Your task to perform on an android device: turn off sleep mode Image 0: 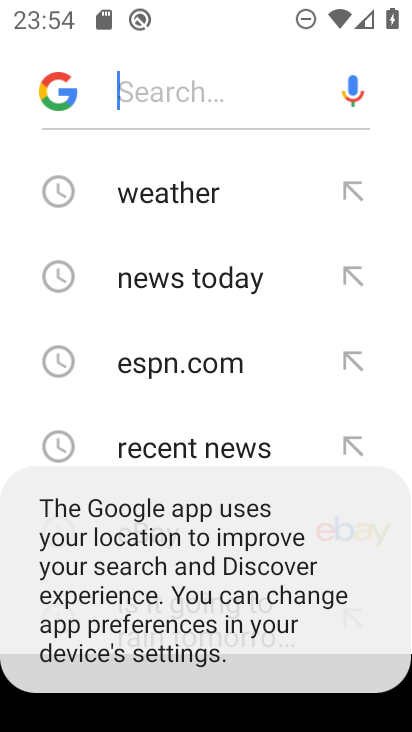
Step 0: press home button
Your task to perform on an android device: turn off sleep mode Image 1: 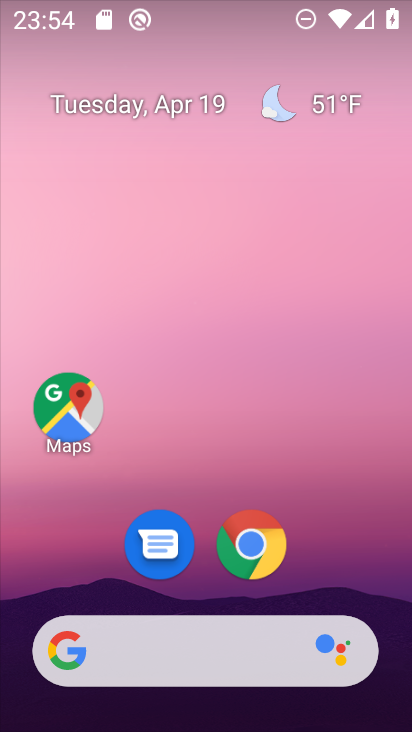
Step 1: drag from (361, 571) to (314, 99)
Your task to perform on an android device: turn off sleep mode Image 2: 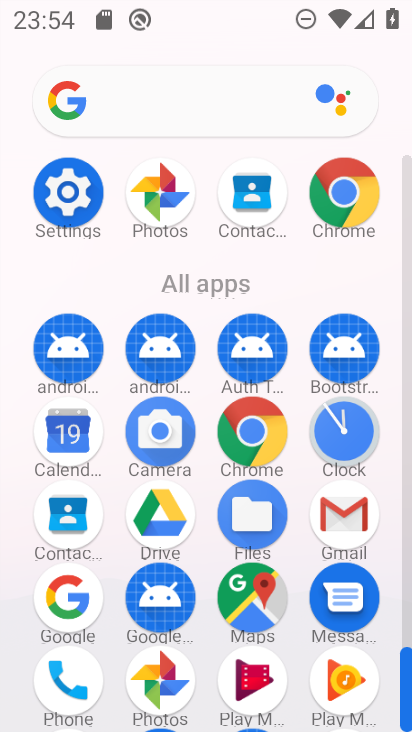
Step 2: click (77, 217)
Your task to perform on an android device: turn off sleep mode Image 3: 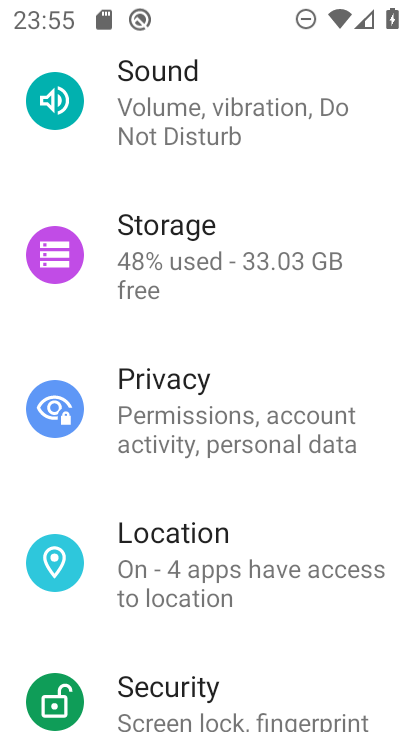
Step 3: drag from (299, 639) to (195, 341)
Your task to perform on an android device: turn off sleep mode Image 4: 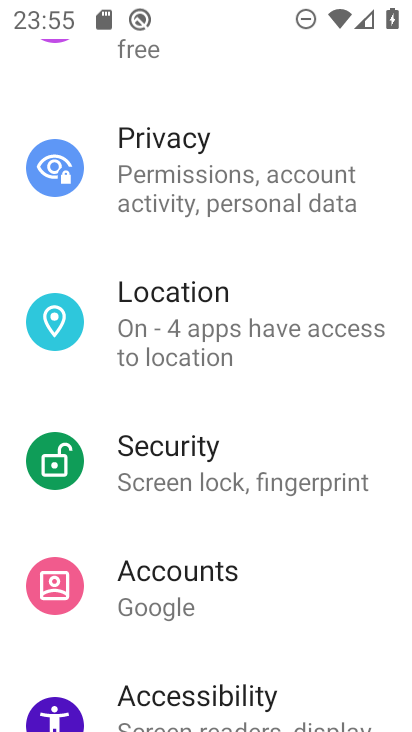
Step 4: drag from (363, 512) to (364, 316)
Your task to perform on an android device: turn off sleep mode Image 5: 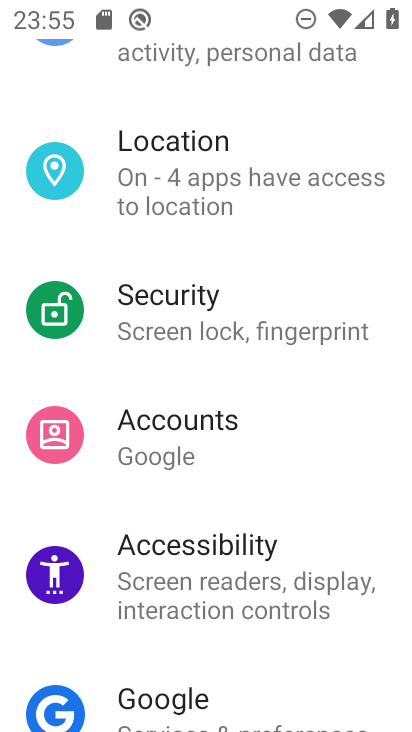
Step 5: drag from (368, 535) to (327, 276)
Your task to perform on an android device: turn off sleep mode Image 6: 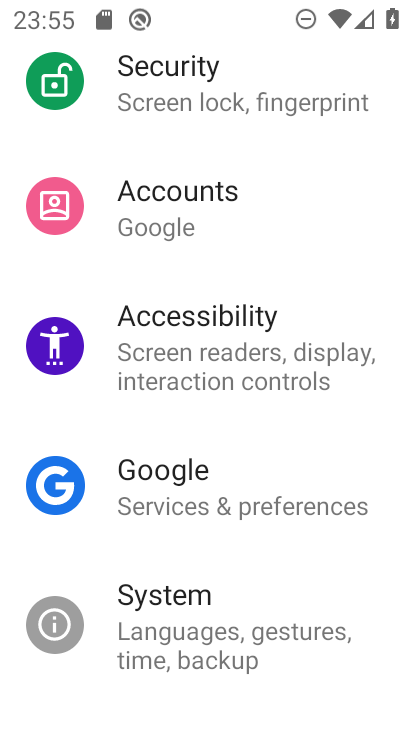
Step 6: drag from (369, 222) to (411, 409)
Your task to perform on an android device: turn off sleep mode Image 7: 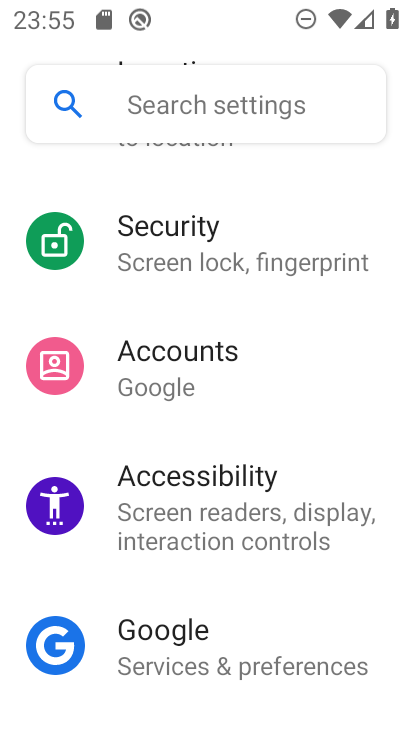
Step 7: drag from (387, 191) to (388, 425)
Your task to perform on an android device: turn off sleep mode Image 8: 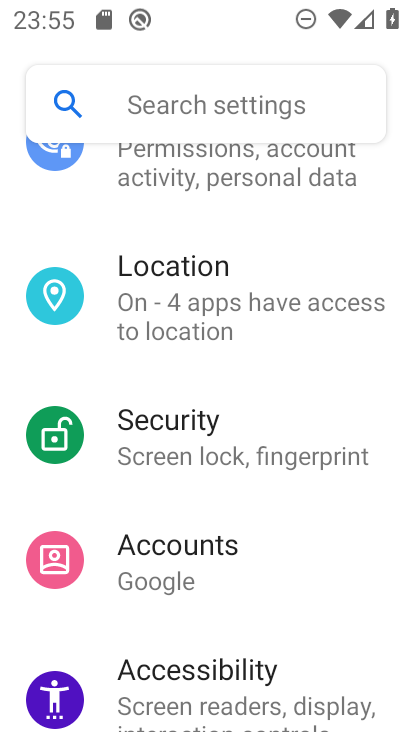
Step 8: drag from (381, 179) to (371, 437)
Your task to perform on an android device: turn off sleep mode Image 9: 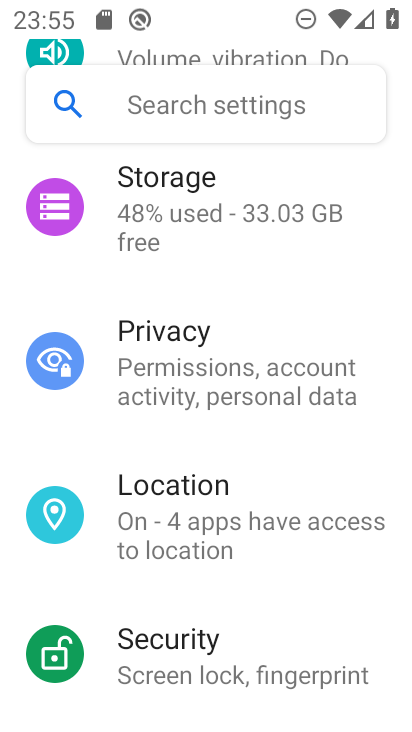
Step 9: drag from (376, 188) to (394, 433)
Your task to perform on an android device: turn off sleep mode Image 10: 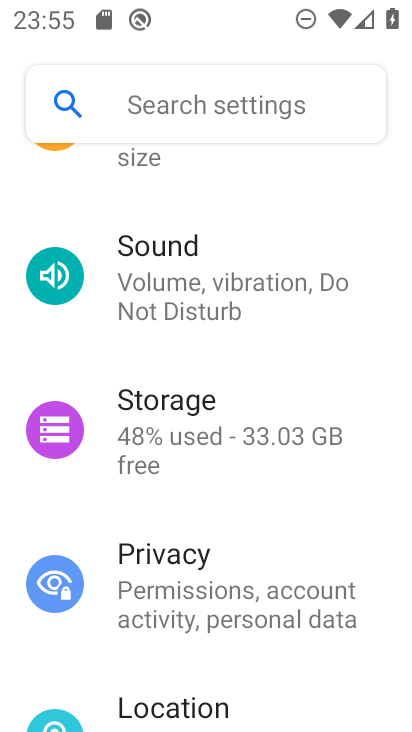
Step 10: drag from (372, 226) to (365, 417)
Your task to perform on an android device: turn off sleep mode Image 11: 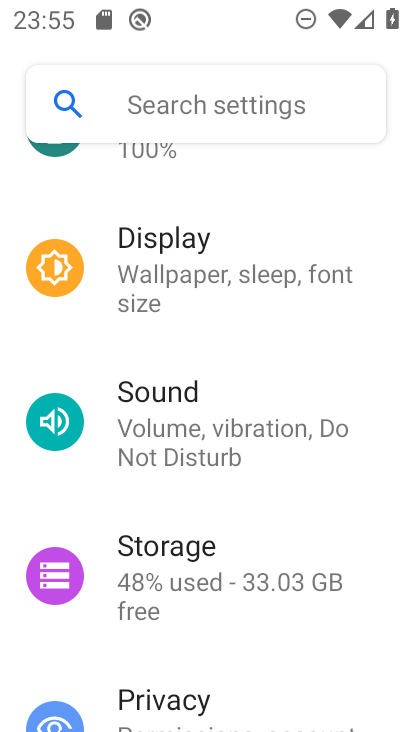
Step 11: click (207, 269)
Your task to perform on an android device: turn off sleep mode Image 12: 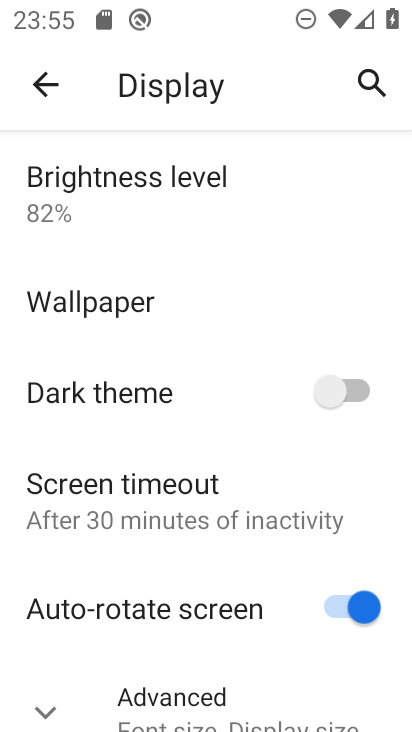
Step 12: click (209, 697)
Your task to perform on an android device: turn off sleep mode Image 13: 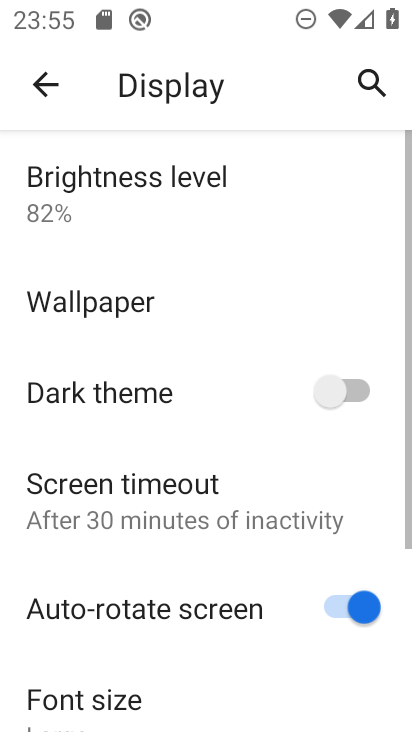
Step 13: task complete